Your task to perform on an android device: Search for pizza restaurants on Maps Image 0: 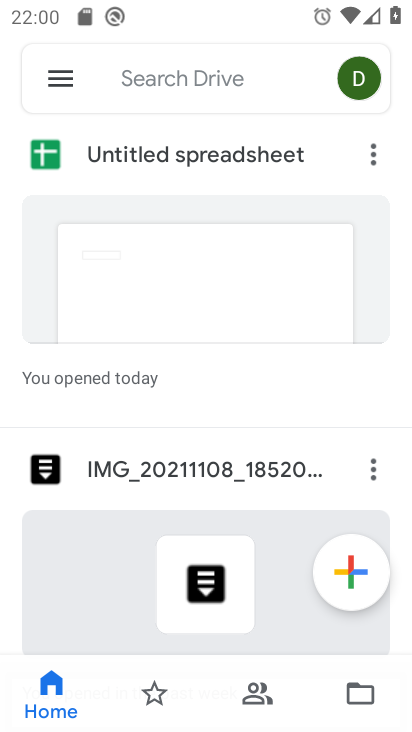
Step 0: press home button
Your task to perform on an android device: Search for pizza restaurants on Maps Image 1: 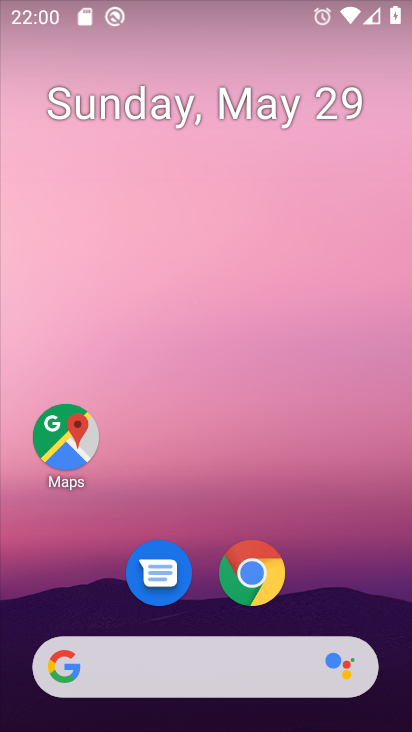
Step 1: click (54, 424)
Your task to perform on an android device: Search for pizza restaurants on Maps Image 2: 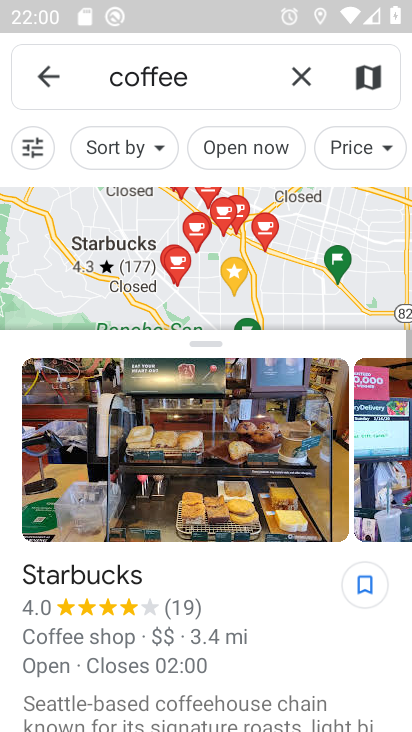
Step 2: click (301, 71)
Your task to perform on an android device: Search for pizza restaurants on Maps Image 3: 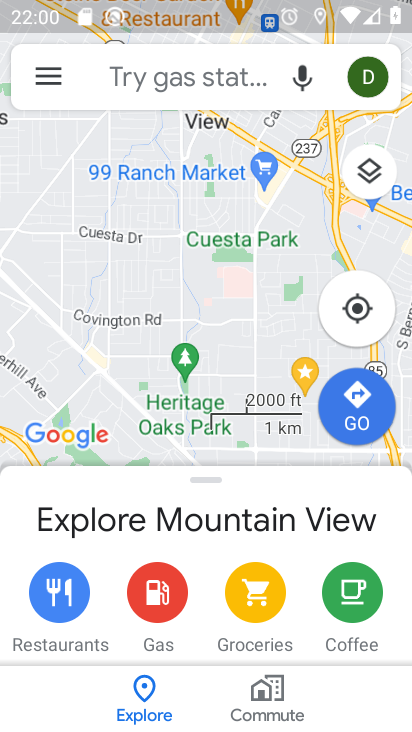
Step 3: click (207, 67)
Your task to perform on an android device: Search for pizza restaurants on Maps Image 4: 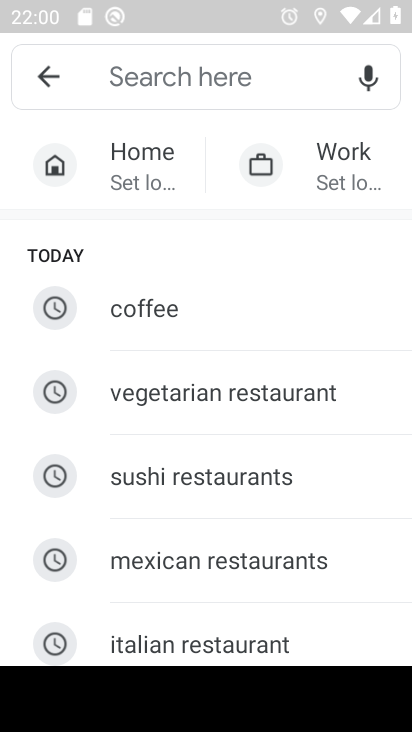
Step 4: drag from (235, 511) to (261, 197)
Your task to perform on an android device: Search for pizza restaurants on Maps Image 5: 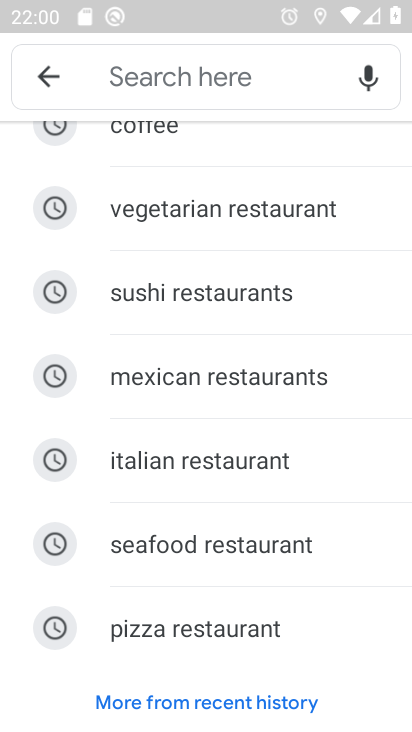
Step 5: click (229, 620)
Your task to perform on an android device: Search for pizza restaurants on Maps Image 6: 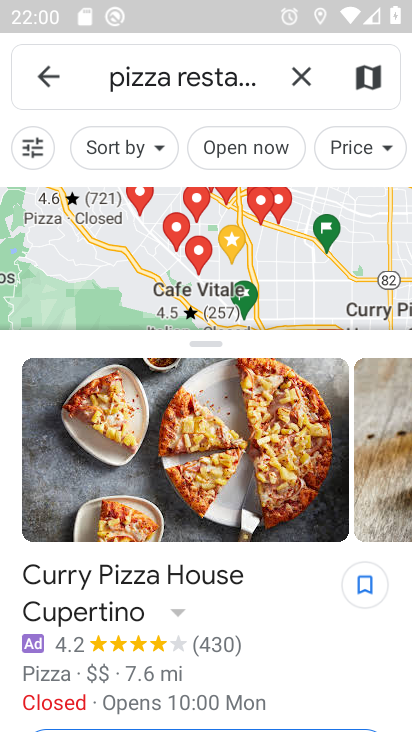
Step 6: task complete